Your task to perform on an android device: change the clock display to digital Image 0: 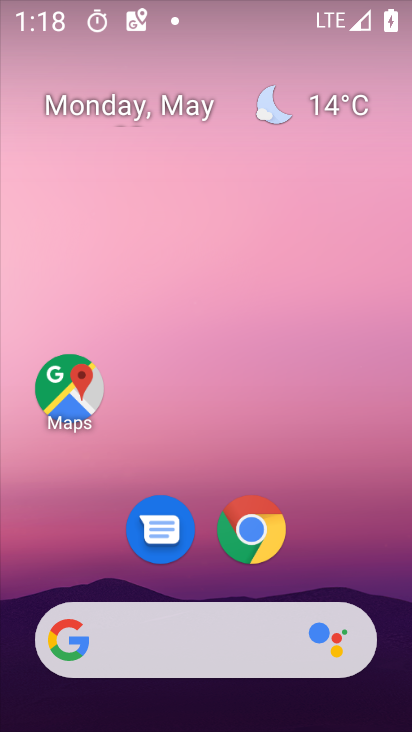
Step 0: drag from (373, 588) to (373, 224)
Your task to perform on an android device: change the clock display to digital Image 1: 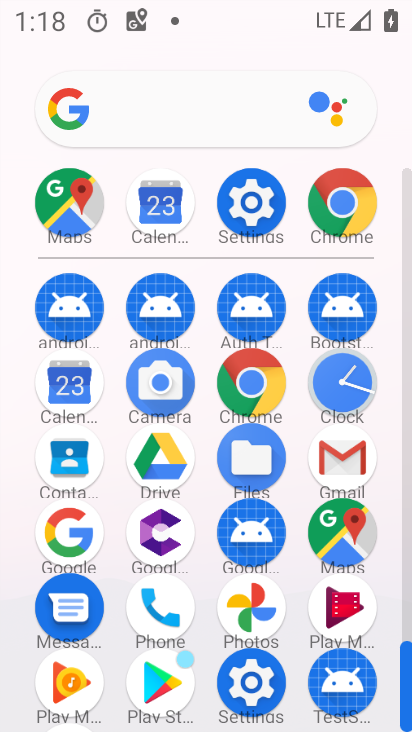
Step 1: click (351, 397)
Your task to perform on an android device: change the clock display to digital Image 2: 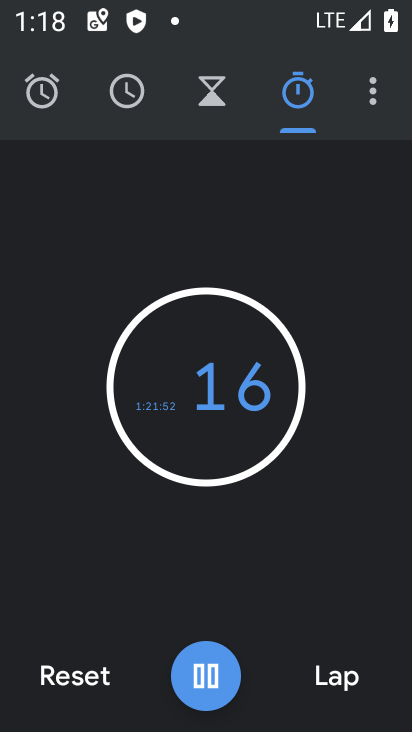
Step 2: click (372, 100)
Your task to perform on an android device: change the clock display to digital Image 3: 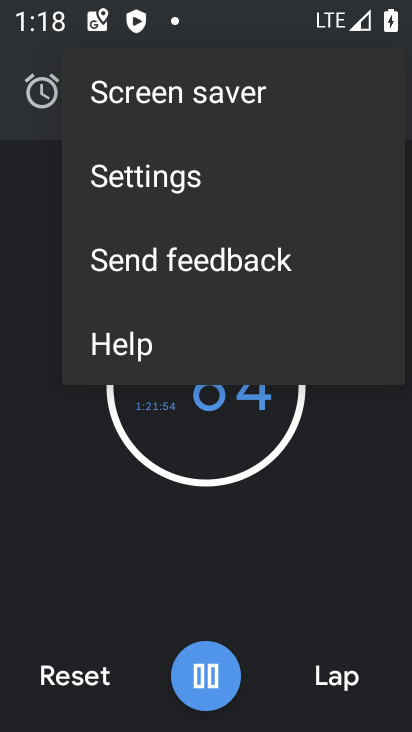
Step 3: click (213, 191)
Your task to perform on an android device: change the clock display to digital Image 4: 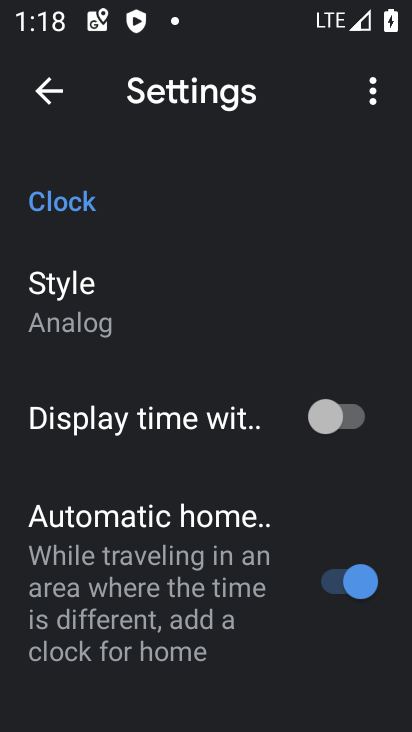
Step 4: drag from (279, 586) to (282, 445)
Your task to perform on an android device: change the clock display to digital Image 5: 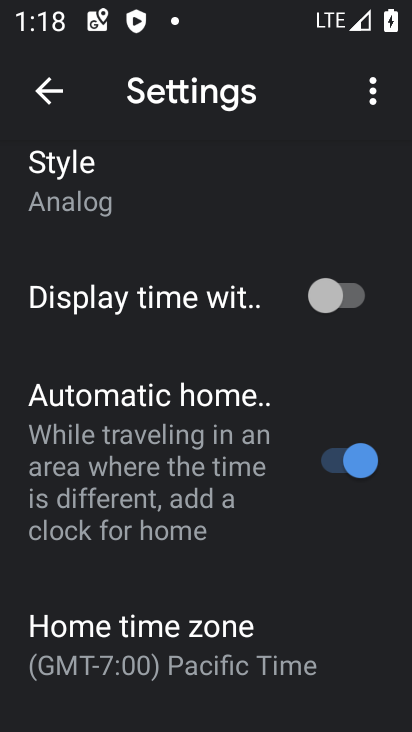
Step 5: drag from (288, 574) to (301, 466)
Your task to perform on an android device: change the clock display to digital Image 6: 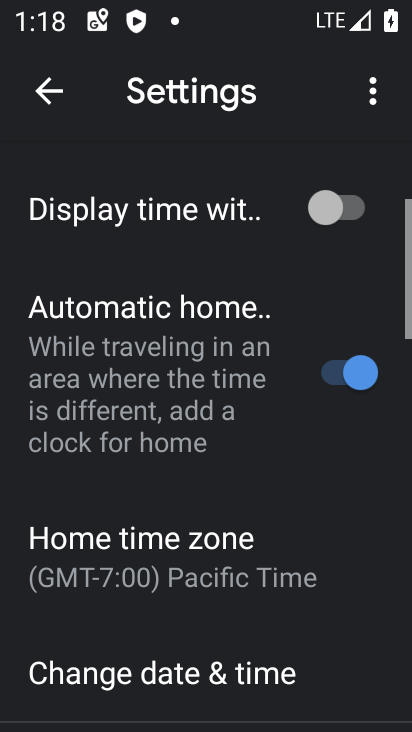
Step 6: drag from (290, 634) to (294, 496)
Your task to perform on an android device: change the clock display to digital Image 7: 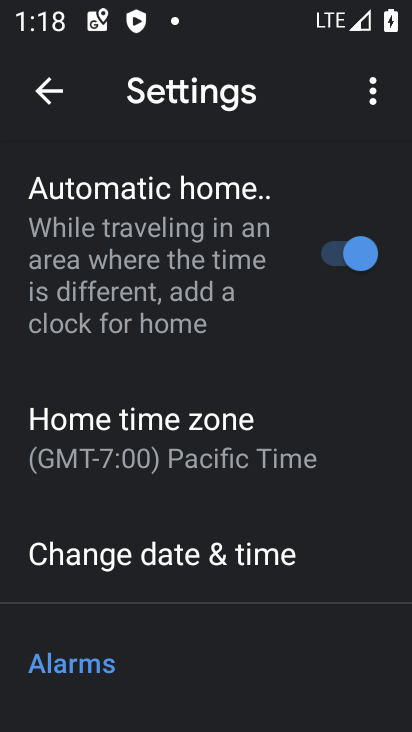
Step 7: drag from (288, 629) to (291, 548)
Your task to perform on an android device: change the clock display to digital Image 8: 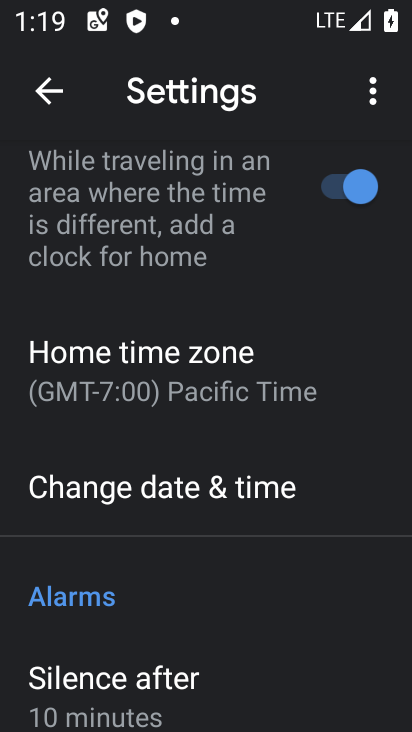
Step 8: drag from (315, 313) to (314, 413)
Your task to perform on an android device: change the clock display to digital Image 9: 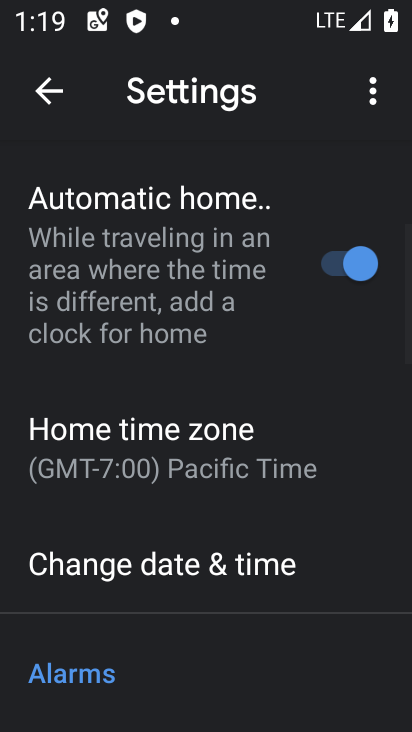
Step 9: drag from (290, 247) to (281, 366)
Your task to perform on an android device: change the clock display to digital Image 10: 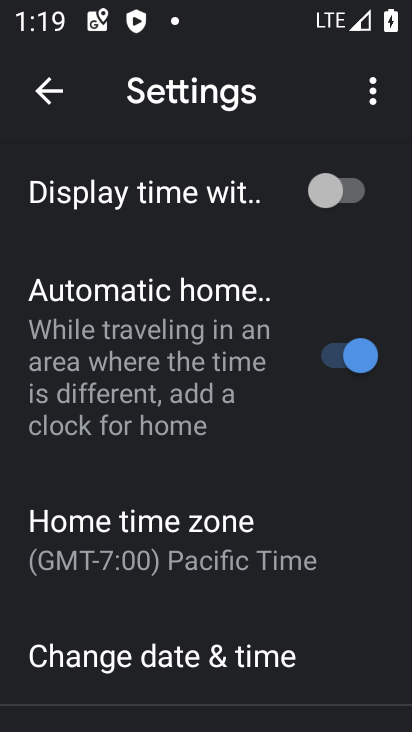
Step 10: drag from (277, 233) to (278, 356)
Your task to perform on an android device: change the clock display to digital Image 11: 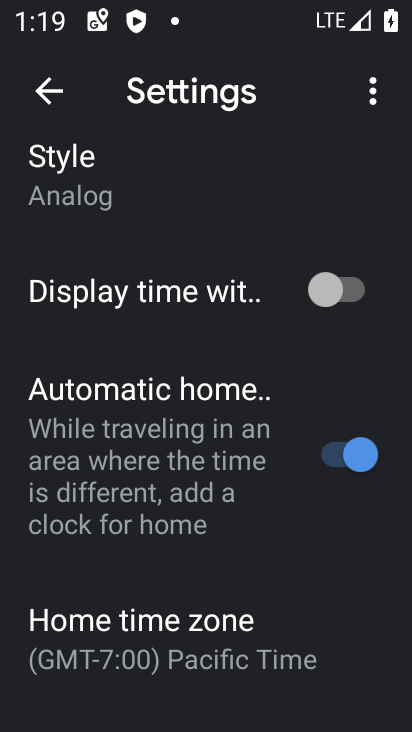
Step 11: drag from (280, 226) to (272, 349)
Your task to perform on an android device: change the clock display to digital Image 12: 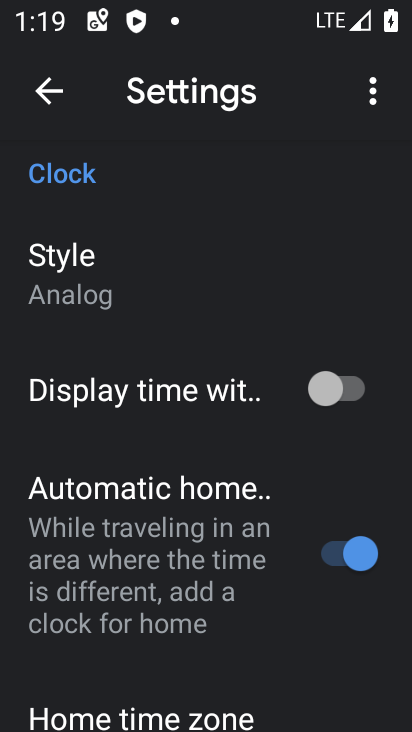
Step 12: click (130, 297)
Your task to perform on an android device: change the clock display to digital Image 13: 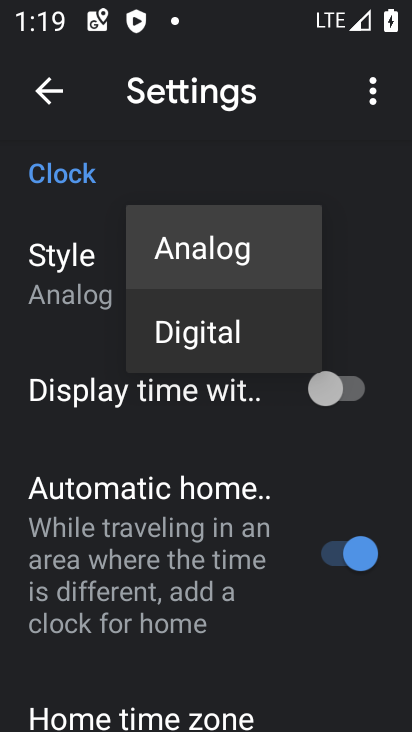
Step 13: click (215, 350)
Your task to perform on an android device: change the clock display to digital Image 14: 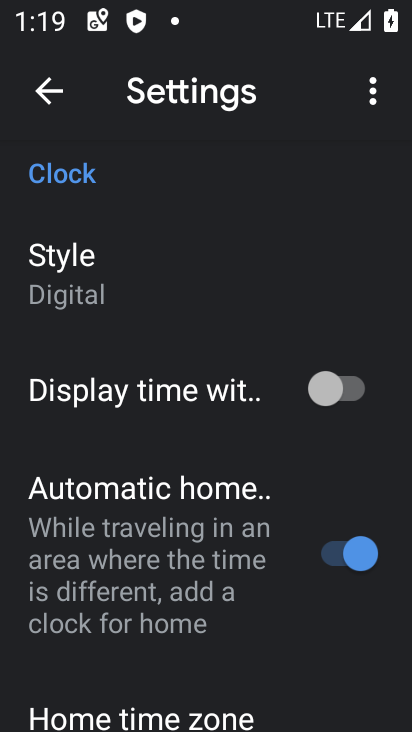
Step 14: task complete